Your task to perform on an android device: check google app version Image 0: 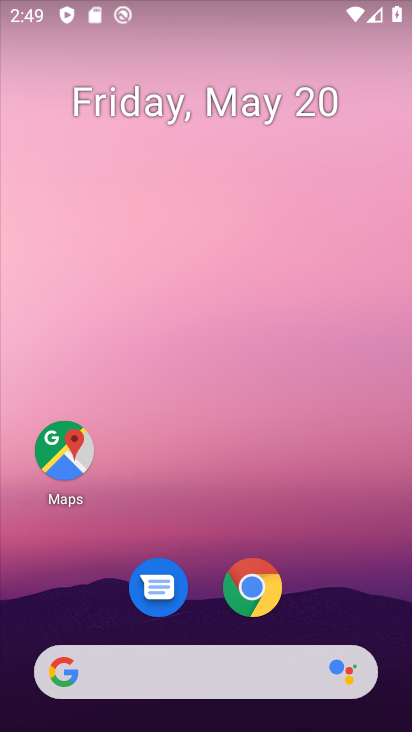
Step 0: drag from (340, 628) to (284, 205)
Your task to perform on an android device: check google app version Image 1: 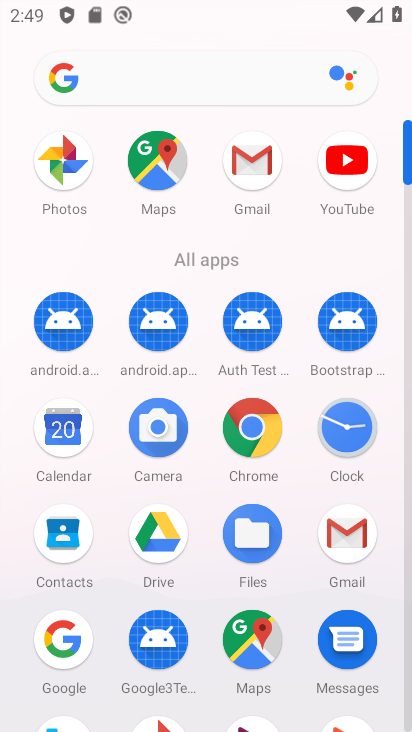
Step 1: click (271, 445)
Your task to perform on an android device: check google app version Image 2: 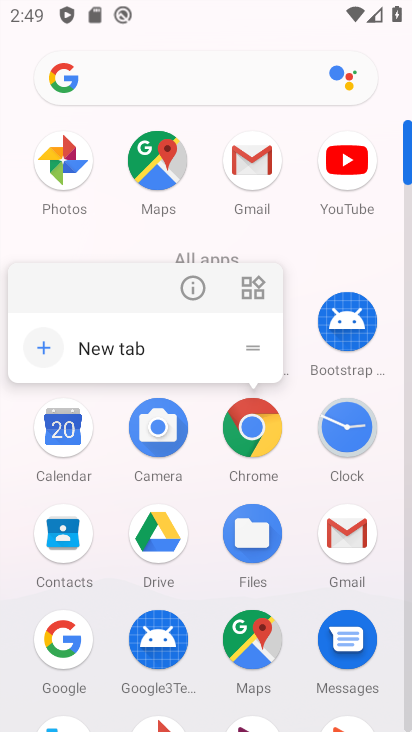
Step 2: click (203, 295)
Your task to perform on an android device: check google app version Image 3: 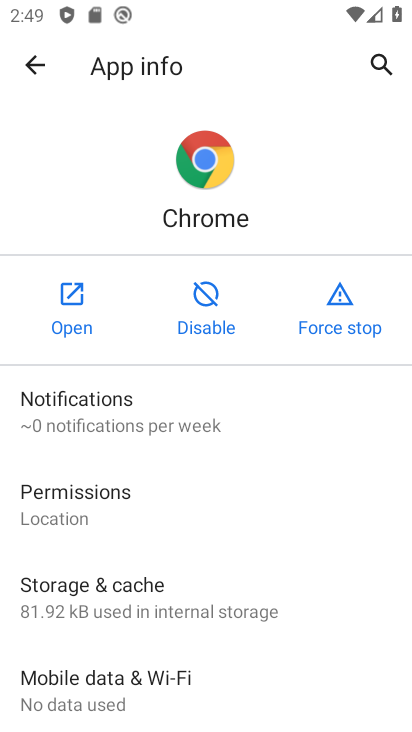
Step 3: drag from (258, 665) to (199, 121)
Your task to perform on an android device: check google app version Image 4: 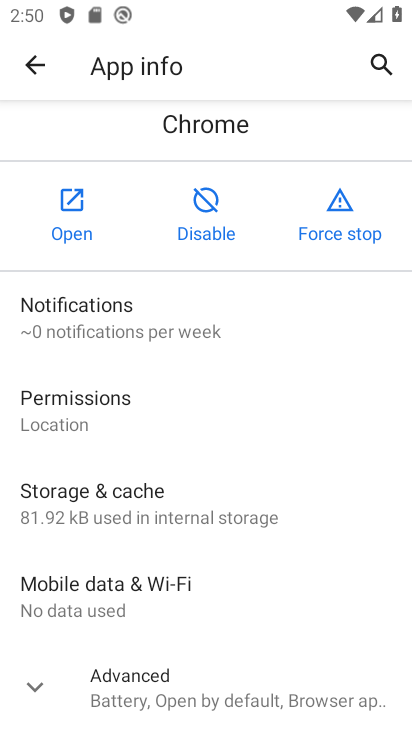
Step 4: click (219, 701)
Your task to perform on an android device: check google app version Image 5: 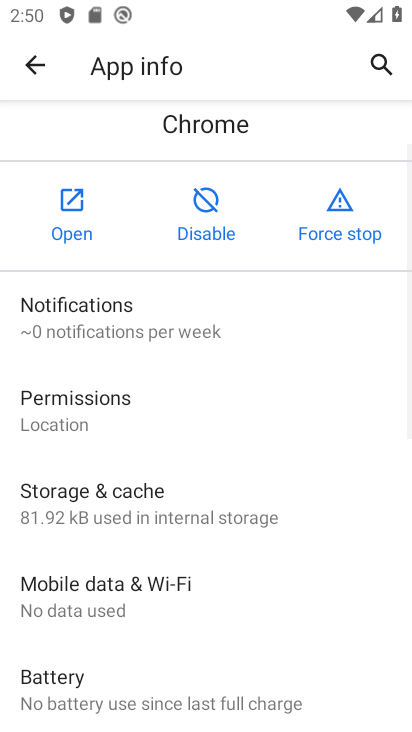
Step 5: task complete